Your task to perform on an android device: toggle data saver in the chrome app Image 0: 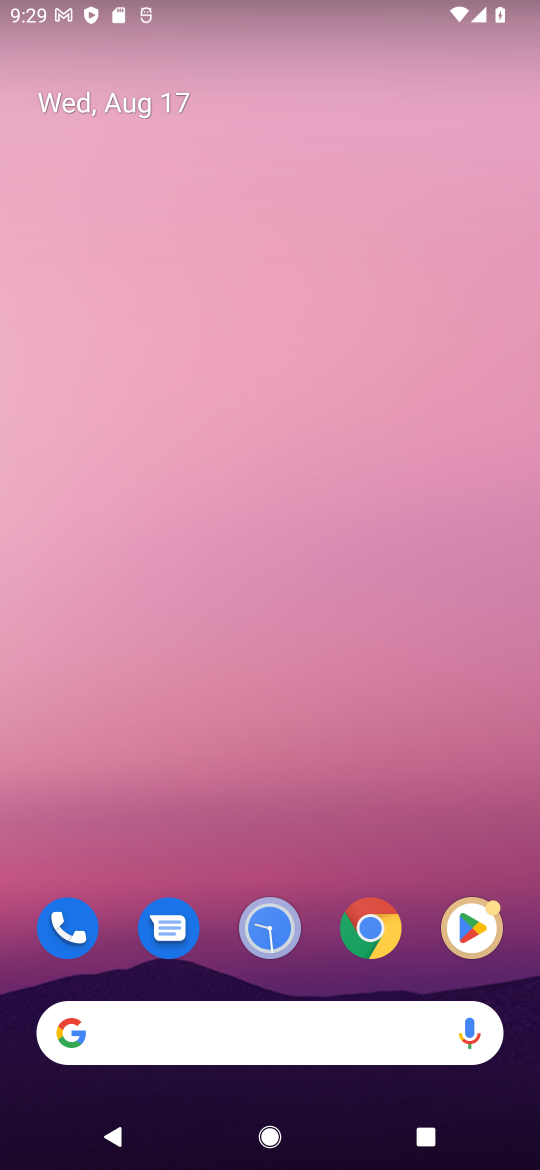
Step 0: click (386, 935)
Your task to perform on an android device: toggle data saver in the chrome app Image 1: 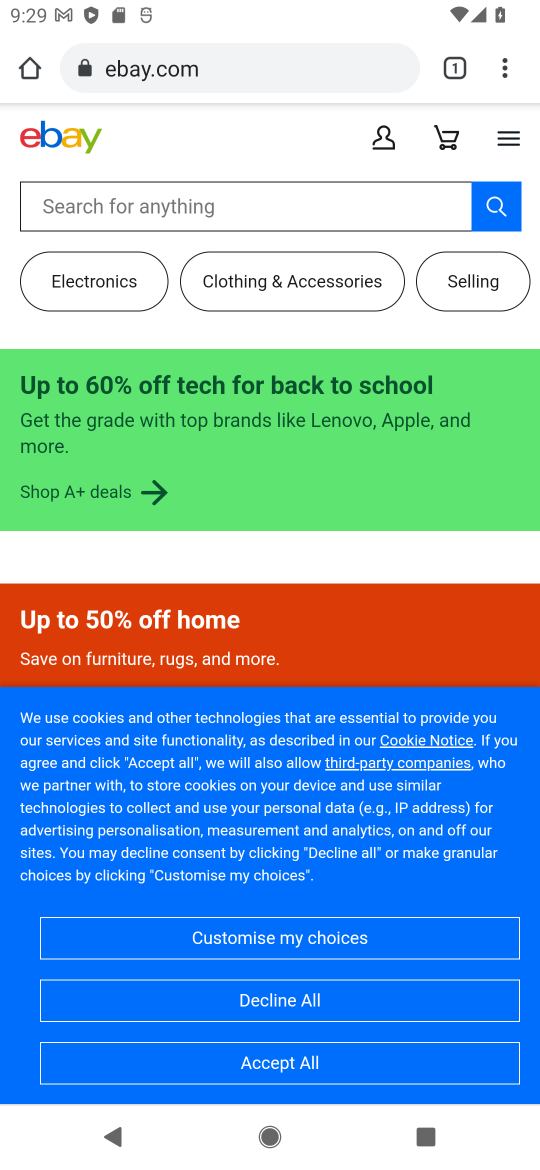
Step 1: click (514, 79)
Your task to perform on an android device: toggle data saver in the chrome app Image 2: 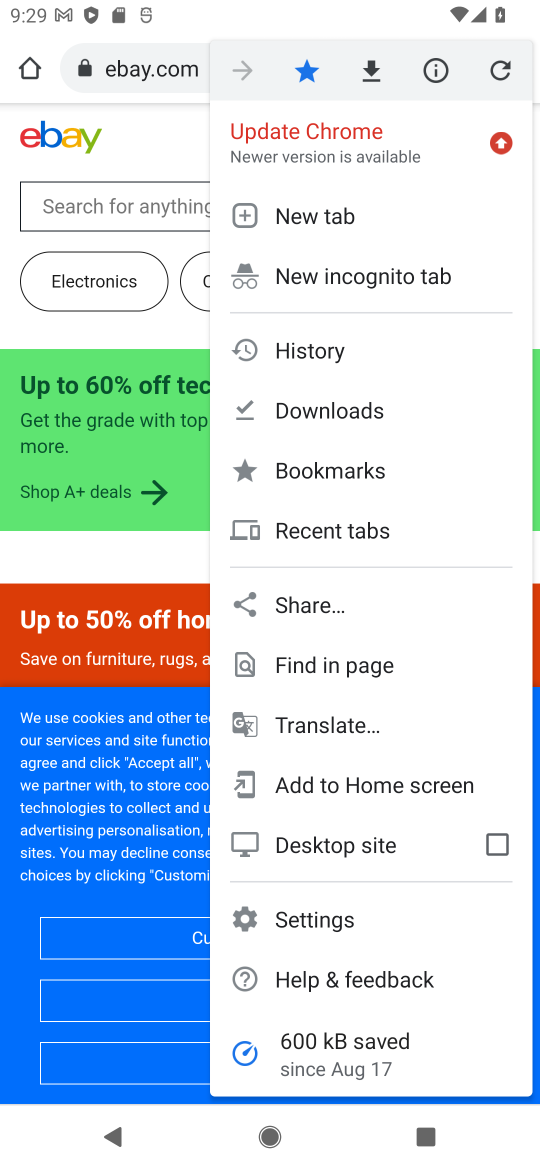
Step 2: click (295, 926)
Your task to perform on an android device: toggle data saver in the chrome app Image 3: 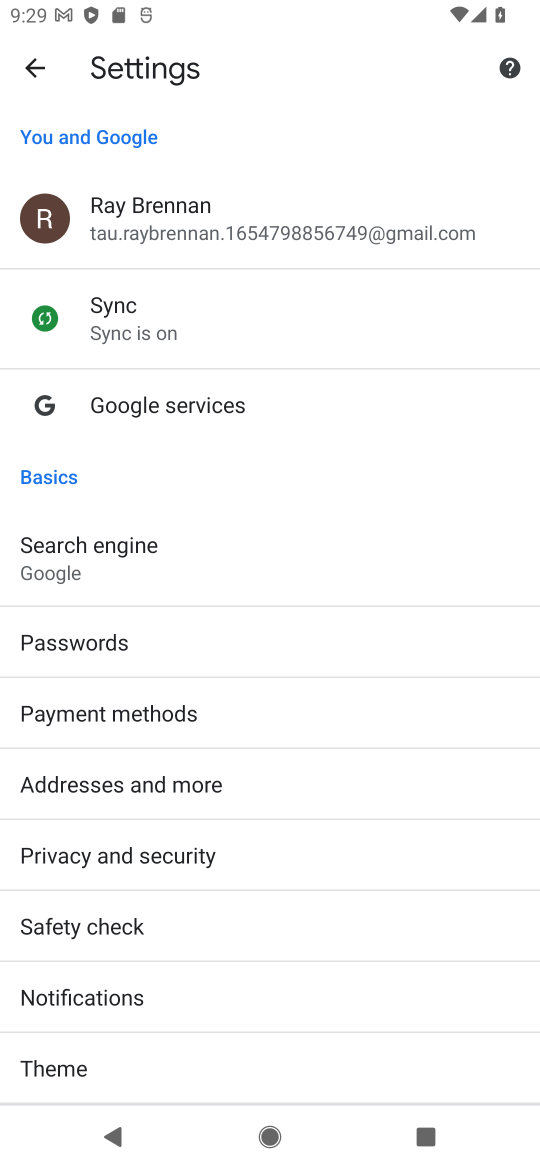
Step 3: drag from (255, 979) to (299, 471)
Your task to perform on an android device: toggle data saver in the chrome app Image 4: 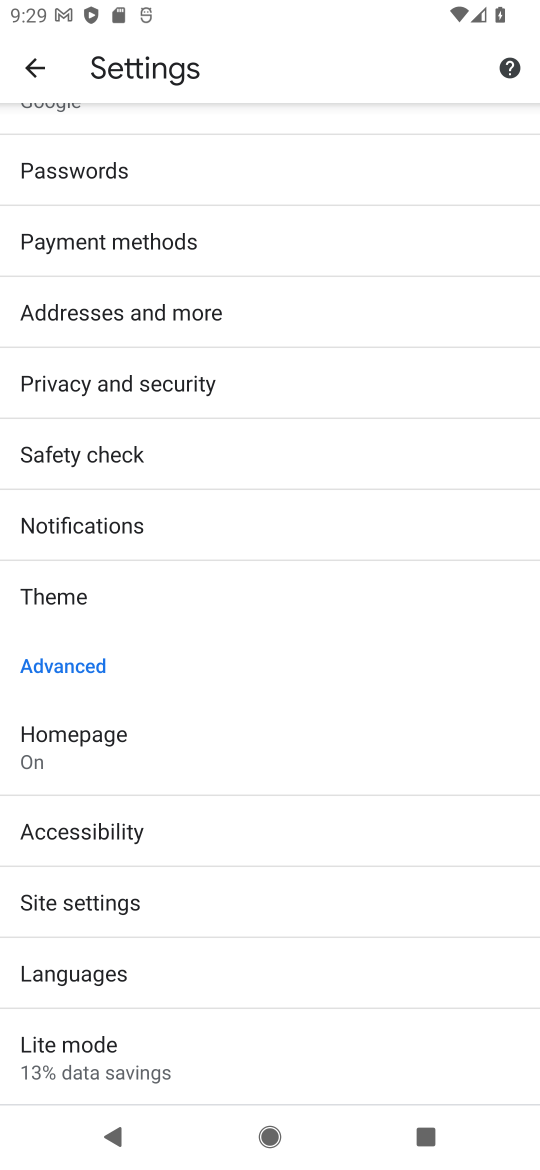
Step 4: click (136, 1040)
Your task to perform on an android device: toggle data saver in the chrome app Image 5: 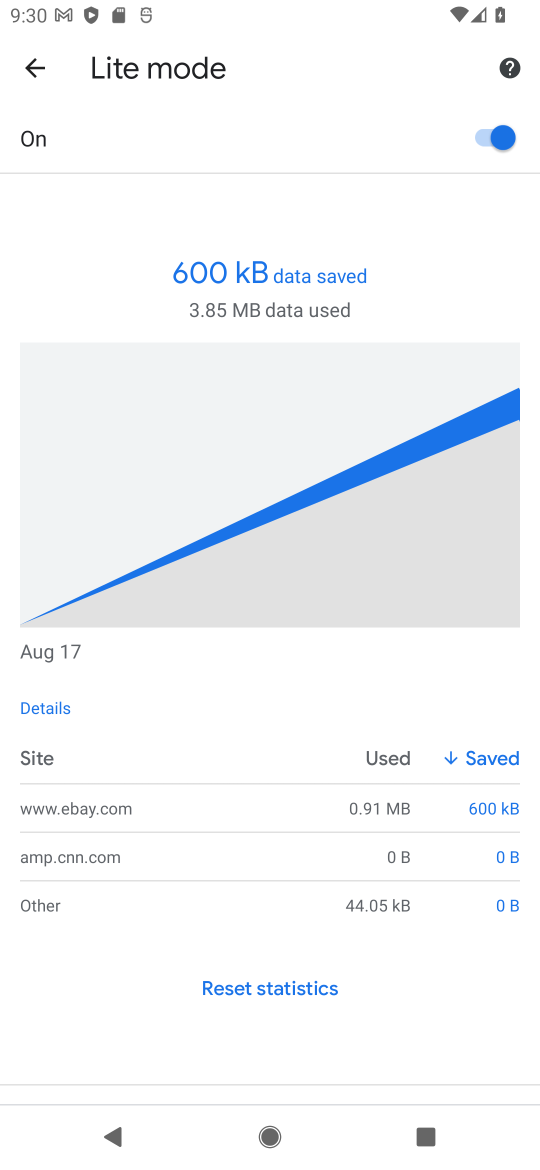
Step 5: click (490, 148)
Your task to perform on an android device: toggle data saver in the chrome app Image 6: 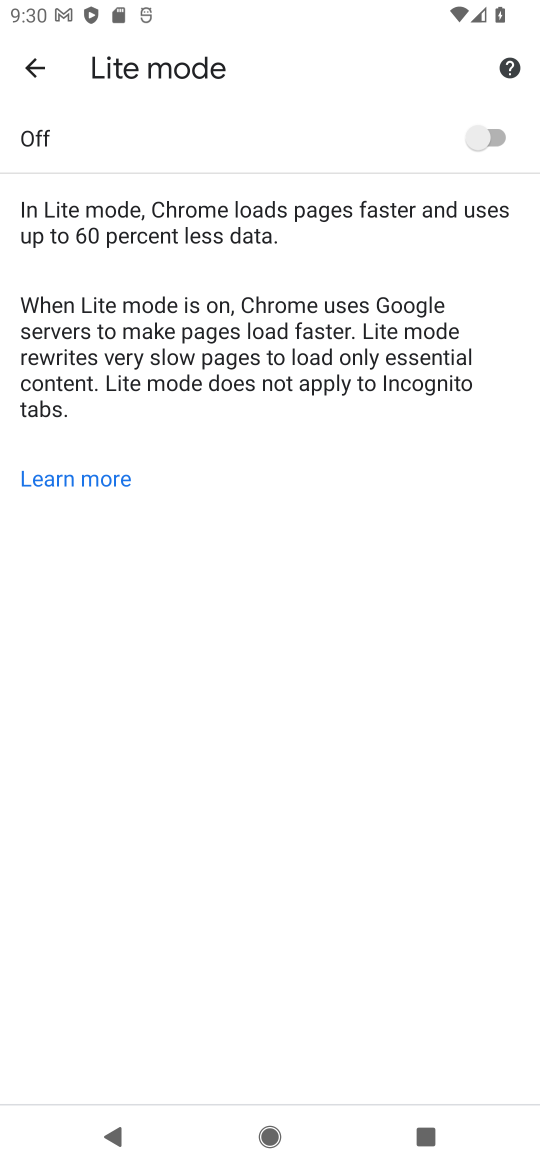
Step 6: task complete